Your task to perform on an android device: turn on wifi Image 0: 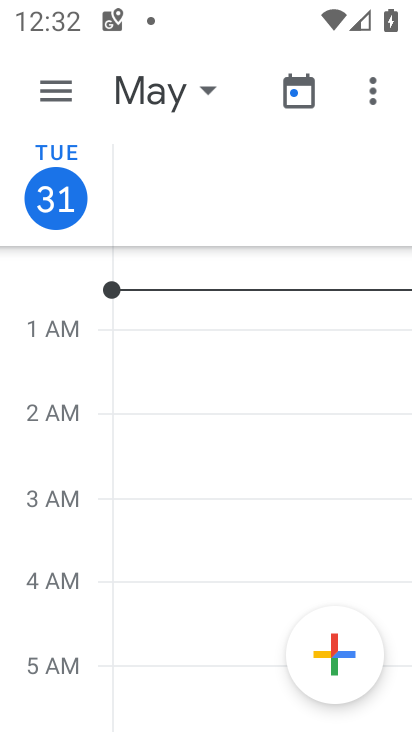
Step 0: press home button
Your task to perform on an android device: turn on wifi Image 1: 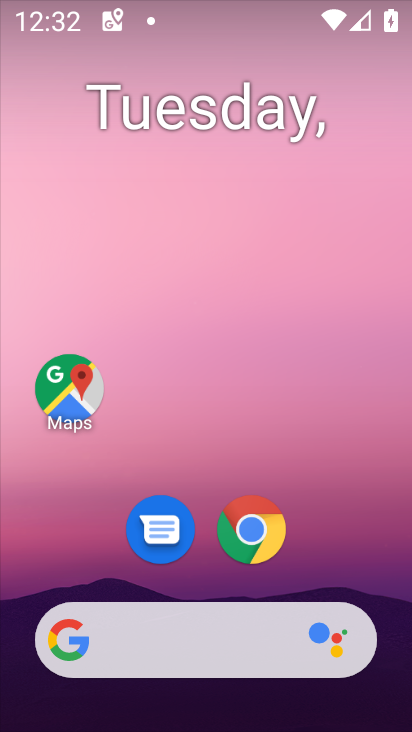
Step 1: drag from (325, 125) to (293, 26)
Your task to perform on an android device: turn on wifi Image 2: 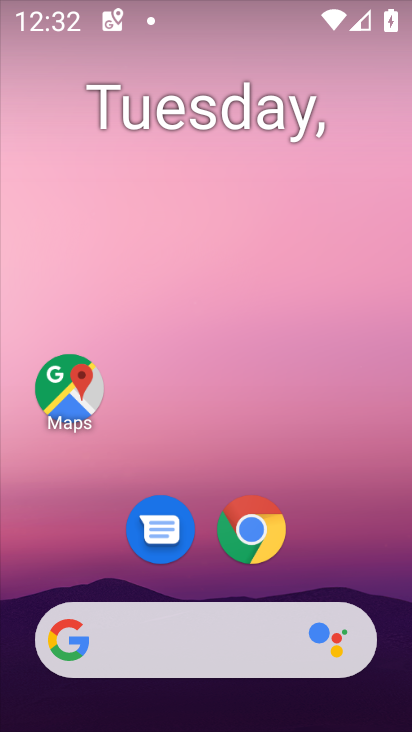
Step 2: drag from (242, 683) to (164, 0)
Your task to perform on an android device: turn on wifi Image 3: 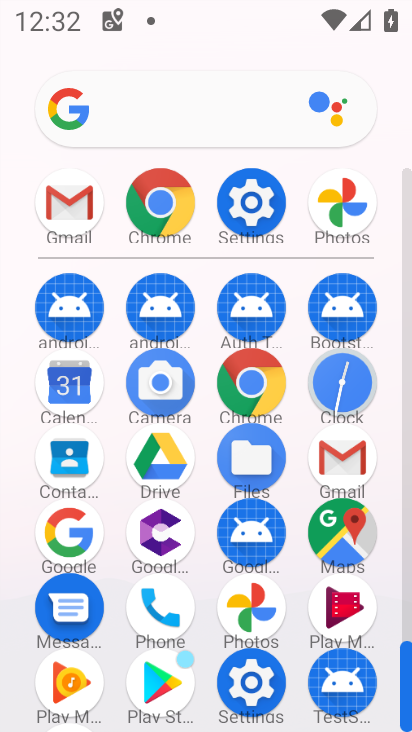
Step 3: click (247, 215)
Your task to perform on an android device: turn on wifi Image 4: 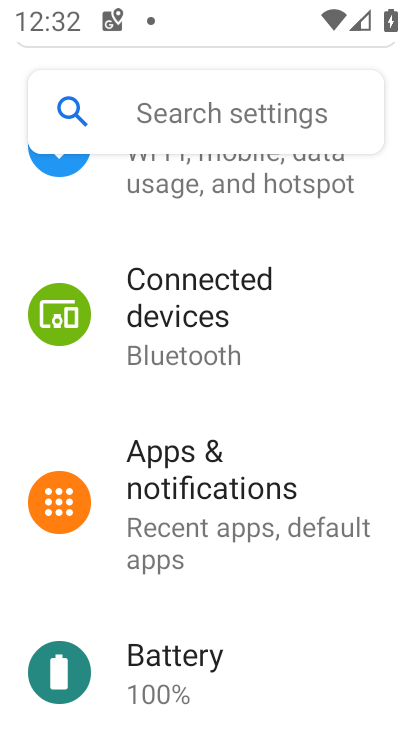
Step 4: click (194, 177)
Your task to perform on an android device: turn on wifi Image 5: 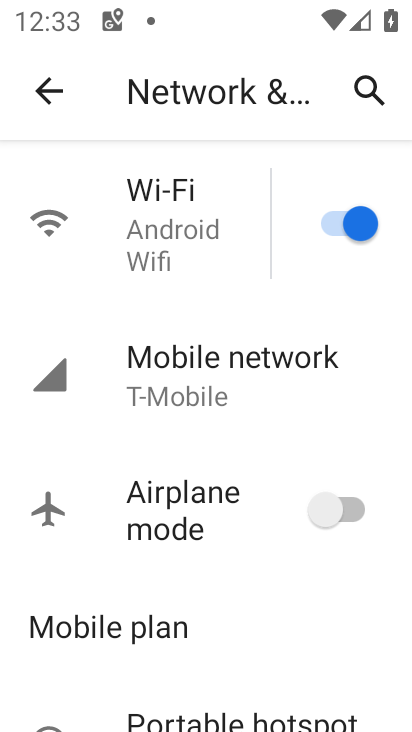
Step 5: task complete